Your task to perform on an android device: change notification settings in the gmail app Image 0: 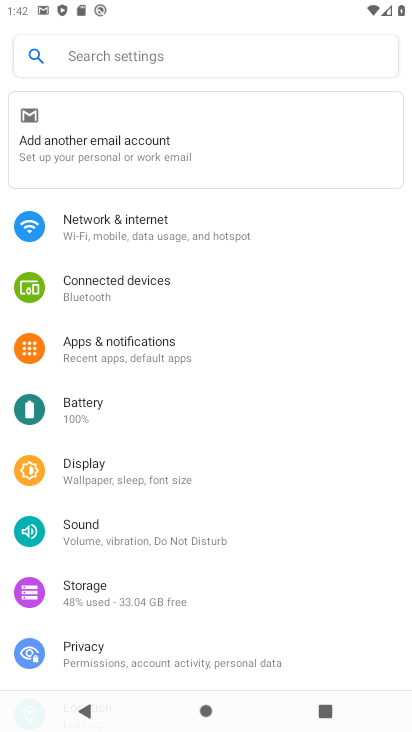
Step 0: press home button
Your task to perform on an android device: change notification settings in the gmail app Image 1: 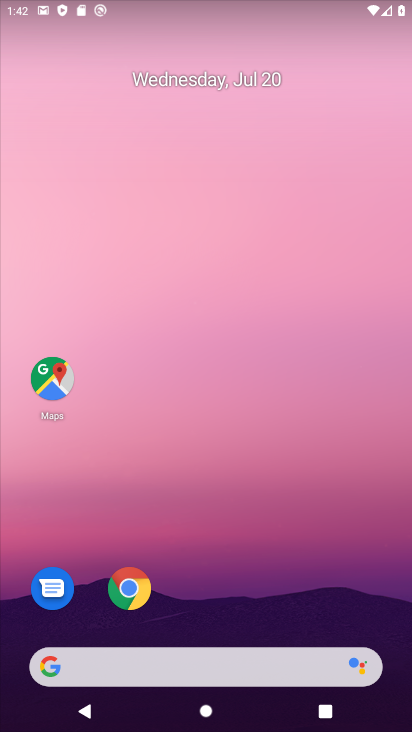
Step 1: drag from (290, 648) to (265, 28)
Your task to perform on an android device: change notification settings in the gmail app Image 2: 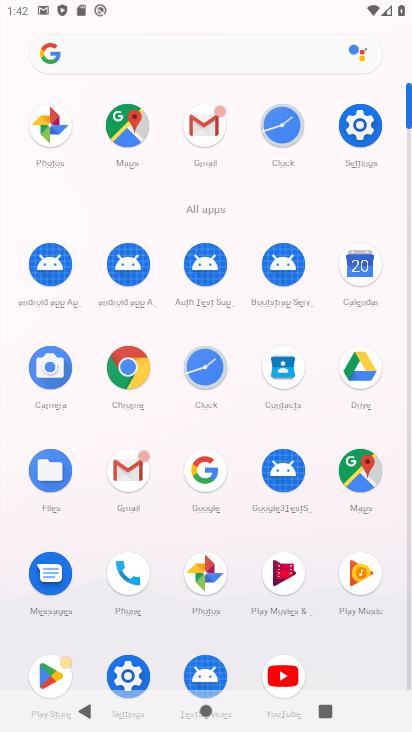
Step 2: click (131, 453)
Your task to perform on an android device: change notification settings in the gmail app Image 3: 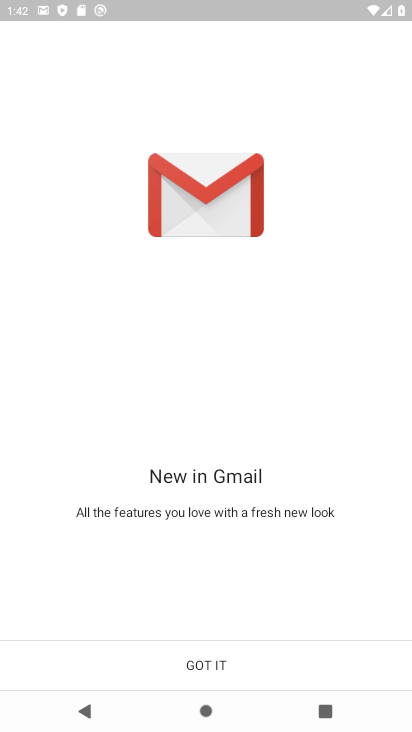
Step 3: click (205, 671)
Your task to perform on an android device: change notification settings in the gmail app Image 4: 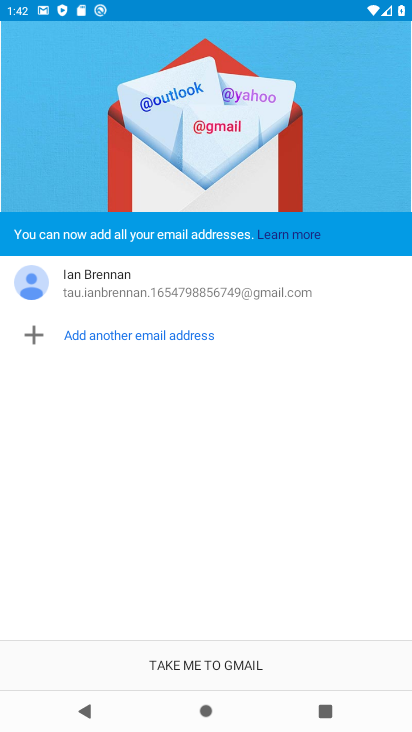
Step 4: click (205, 671)
Your task to perform on an android device: change notification settings in the gmail app Image 5: 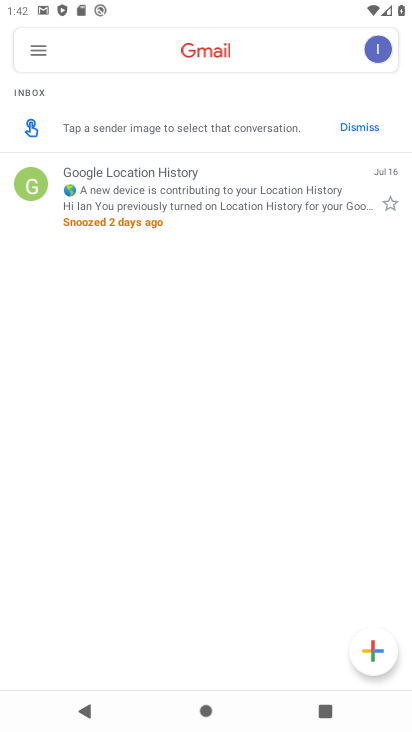
Step 5: click (30, 51)
Your task to perform on an android device: change notification settings in the gmail app Image 6: 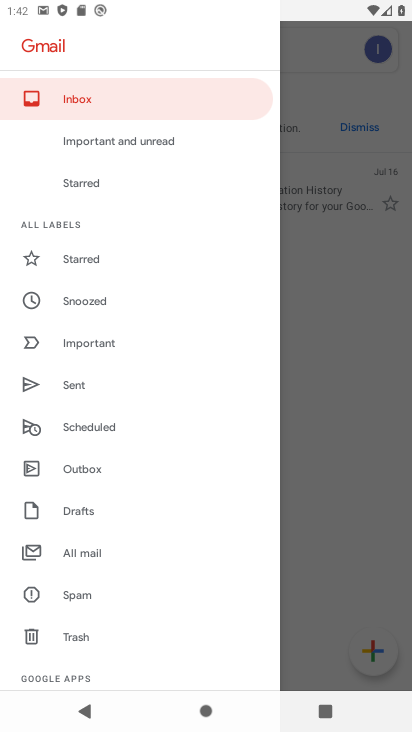
Step 6: drag from (95, 581) to (95, 406)
Your task to perform on an android device: change notification settings in the gmail app Image 7: 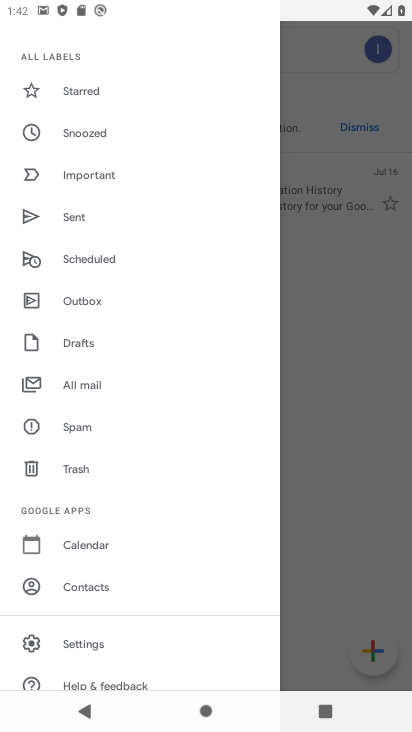
Step 7: click (111, 639)
Your task to perform on an android device: change notification settings in the gmail app Image 8: 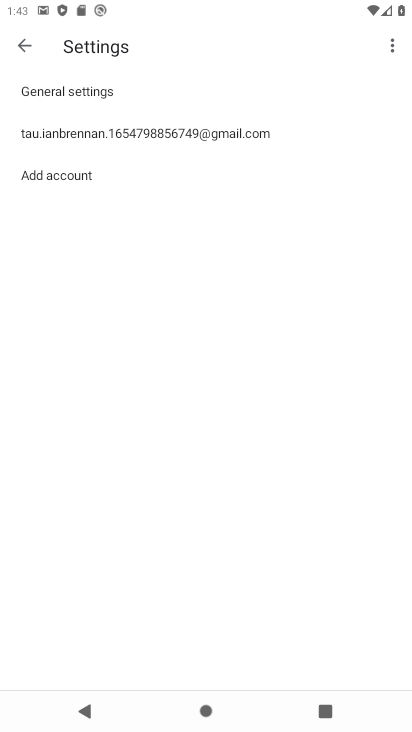
Step 8: click (169, 138)
Your task to perform on an android device: change notification settings in the gmail app Image 9: 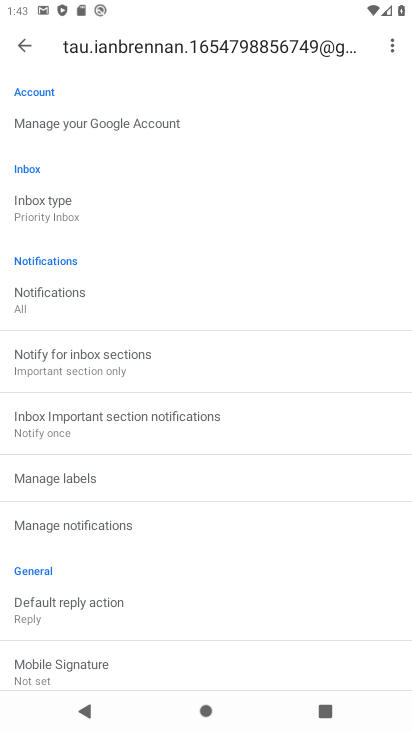
Step 9: click (124, 522)
Your task to perform on an android device: change notification settings in the gmail app Image 10: 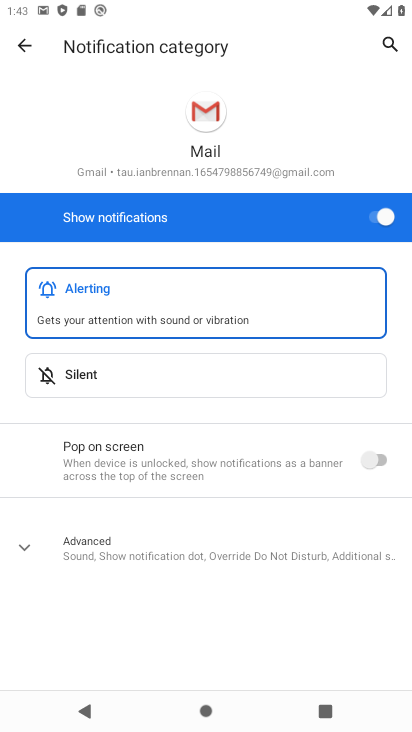
Step 10: click (373, 215)
Your task to perform on an android device: change notification settings in the gmail app Image 11: 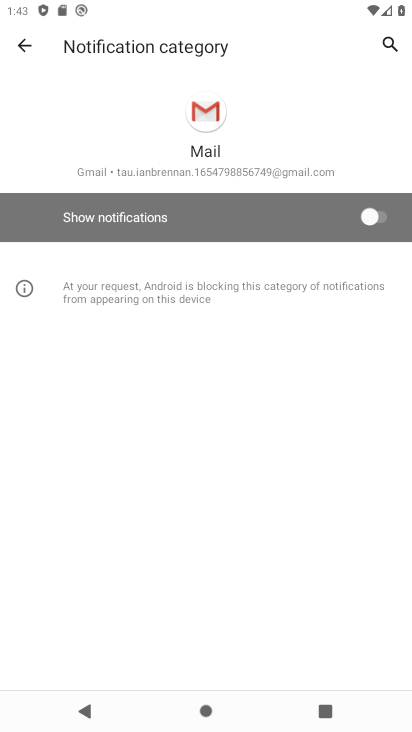
Step 11: task complete